Your task to perform on an android device: Is it going to rain tomorrow? Image 0: 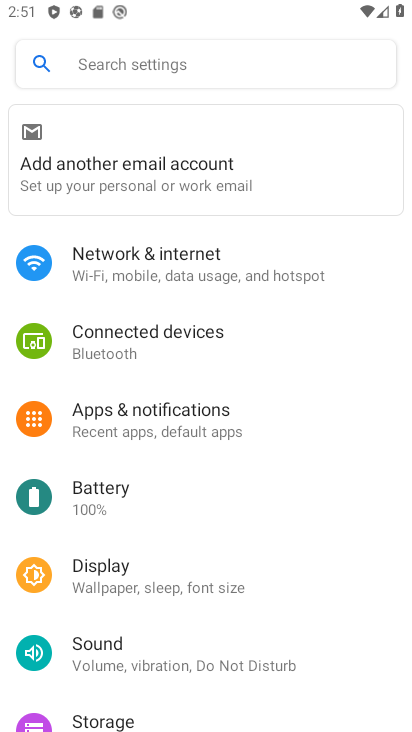
Step 0: press home button
Your task to perform on an android device: Is it going to rain tomorrow? Image 1: 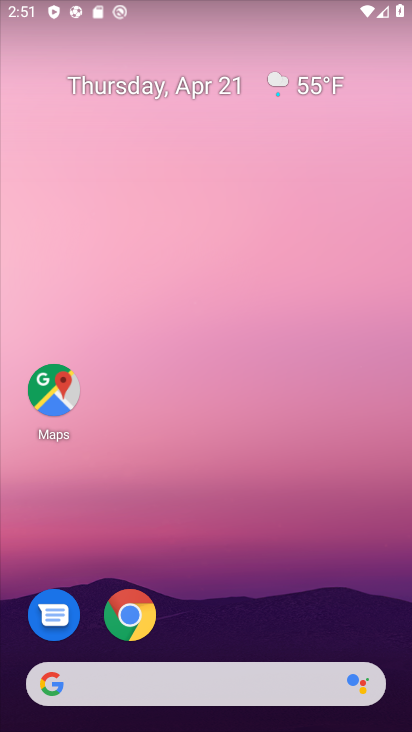
Step 1: click (295, 84)
Your task to perform on an android device: Is it going to rain tomorrow? Image 2: 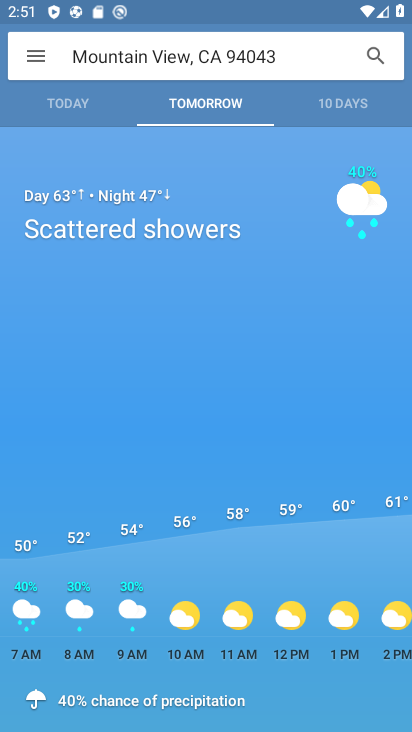
Step 2: task complete